Your task to perform on an android device: turn on wifi Image 0: 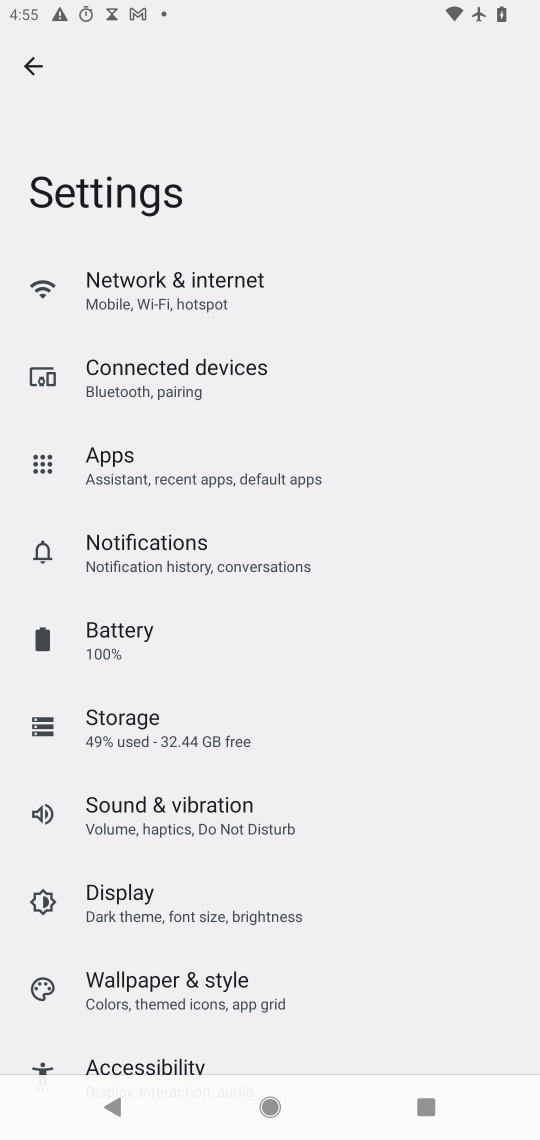
Step 0: press home button
Your task to perform on an android device: turn on wifi Image 1: 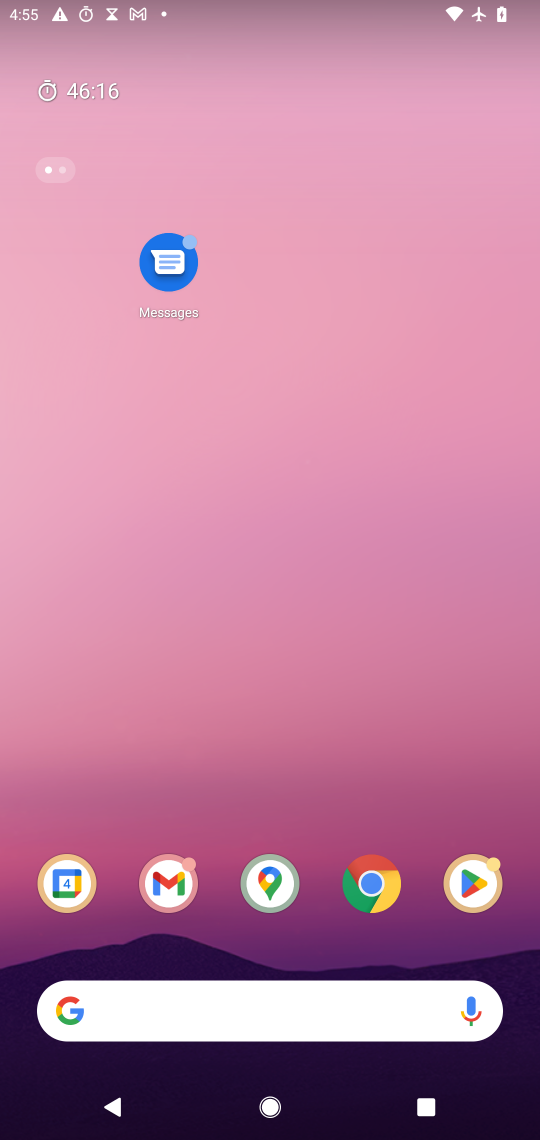
Step 1: drag from (322, 924) to (297, 59)
Your task to perform on an android device: turn on wifi Image 2: 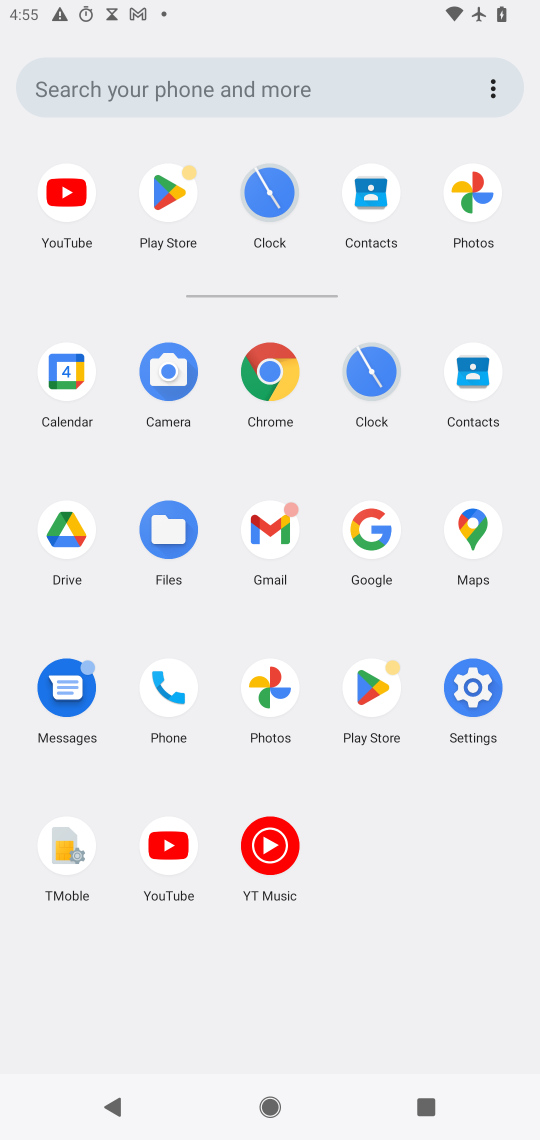
Step 2: click (482, 687)
Your task to perform on an android device: turn on wifi Image 3: 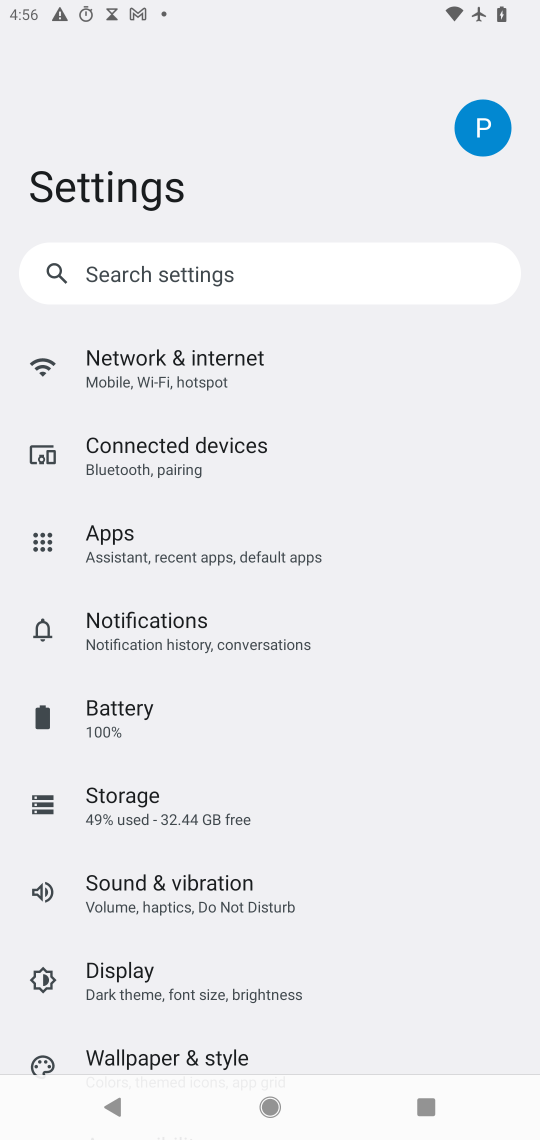
Step 3: click (167, 361)
Your task to perform on an android device: turn on wifi Image 4: 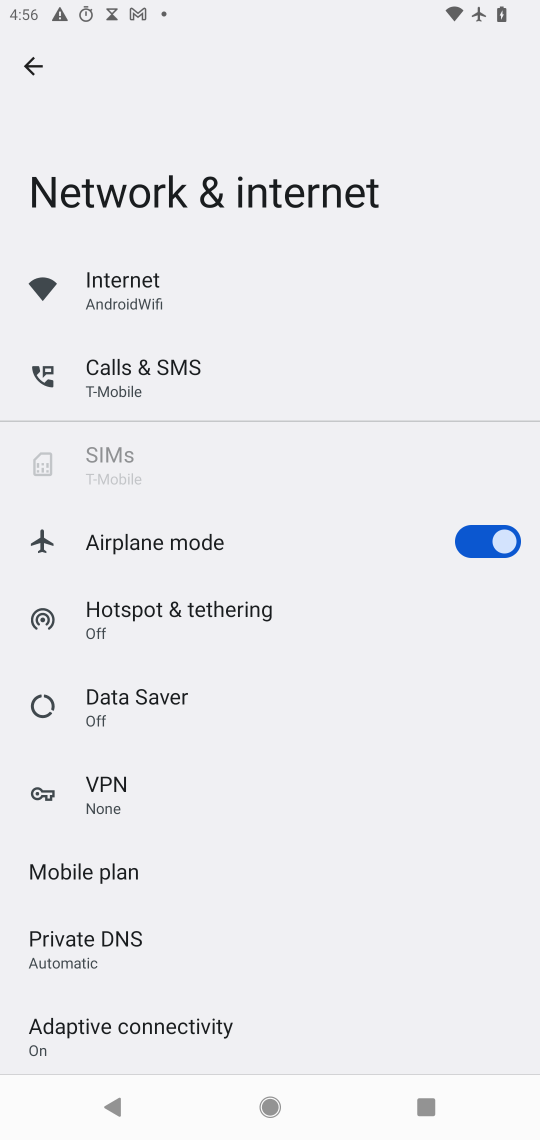
Step 4: click (122, 295)
Your task to perform on an android device: turn on wifi Image 5: 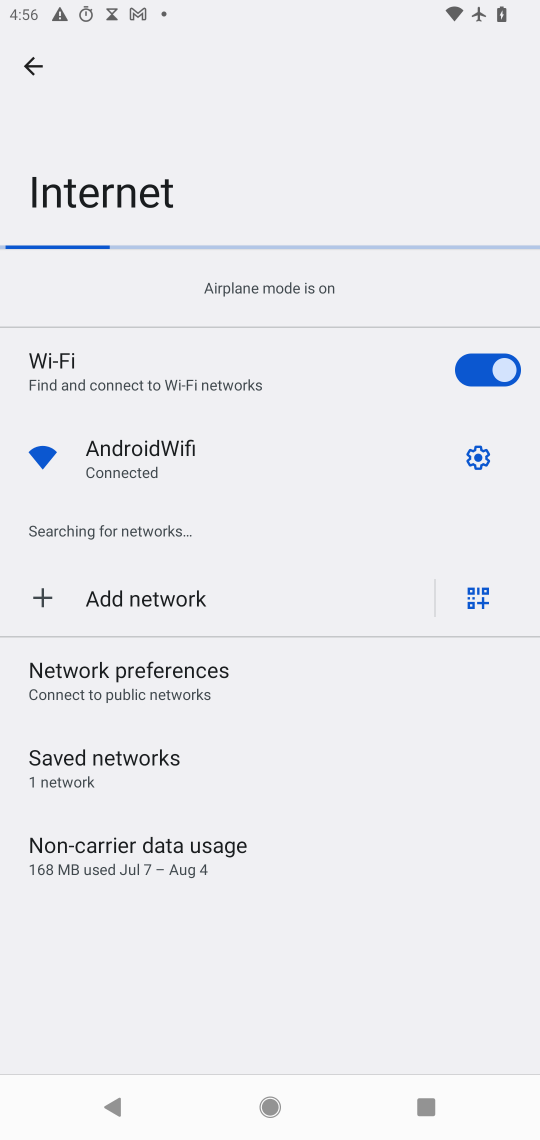
Step 5: task complete